Your task to perform on an android device: Open calendar and show me the fourth week of next month Image 0: 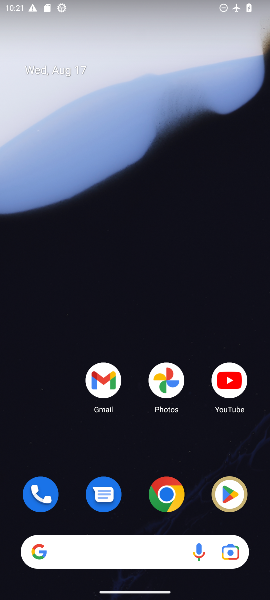
Step 0: drag from (135, 452) to (113, 98)
Your task to perform on an android device: Open calendar and show me the fourth week of next month Image 1: 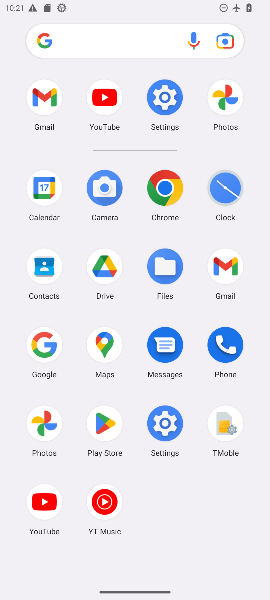
Step 1: click (41, 186)
Your task to perform on an android device: Open calendar and show me the fourth week of next month Image 2: 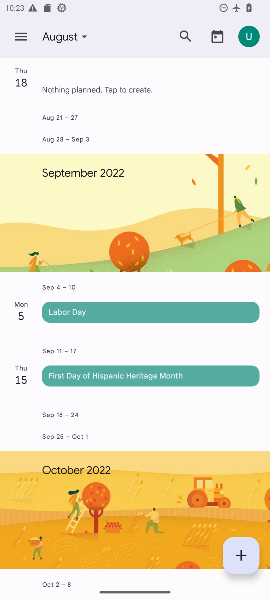
Step 2: click (77, 31)
Your task to perform on an android device: Open calendar and show me the fourth week of next month Image 3: 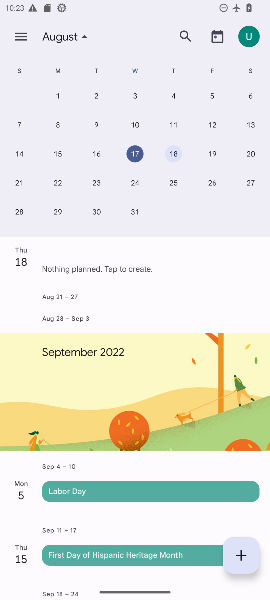
Step 3: drag from (158, 137) to (7, 156)
Your task to perform on an android device: Open calendar and show me the fourth week of next month Image 4: 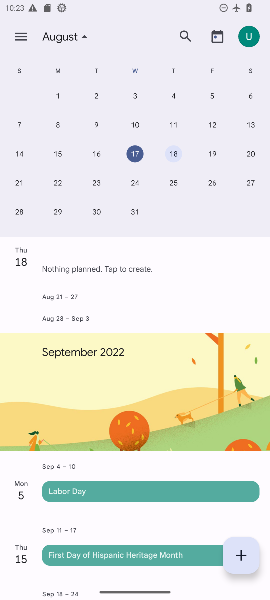
Step 4: drag from (233, 126) to (19, 102)
Your task to perform on an android device: Open calendar and show me the fourth week of next month Image 5: 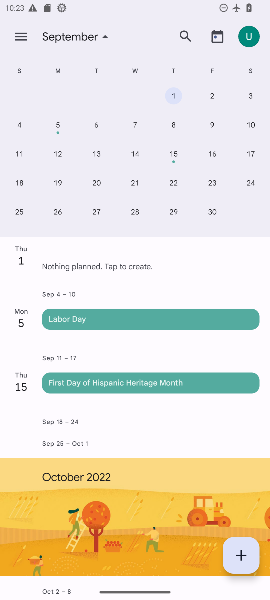
Step 5: click (133, 208)
Your task to perform on an android device: Open calendar and show me the fourth week of next month Image 6: 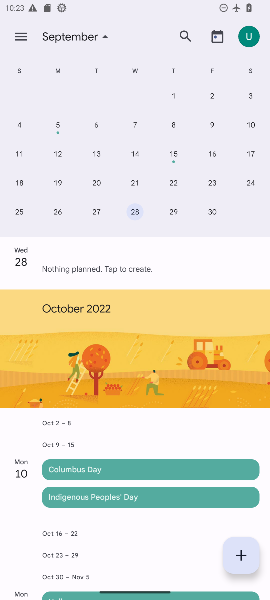
Step 6: task complete